Your task to perform on an android device: turn on notifications settings in the gmail app Image 0: 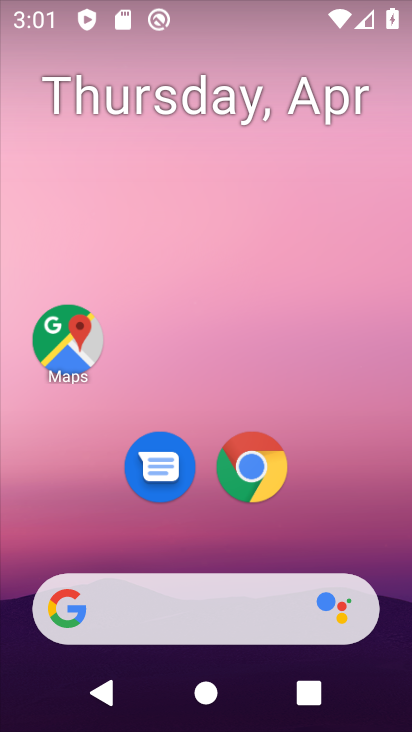
Step 0: drag from (335, 498) to (329, 90)
Your task to perform on an android device: turn on notifications settings in the gmail app Image 1: 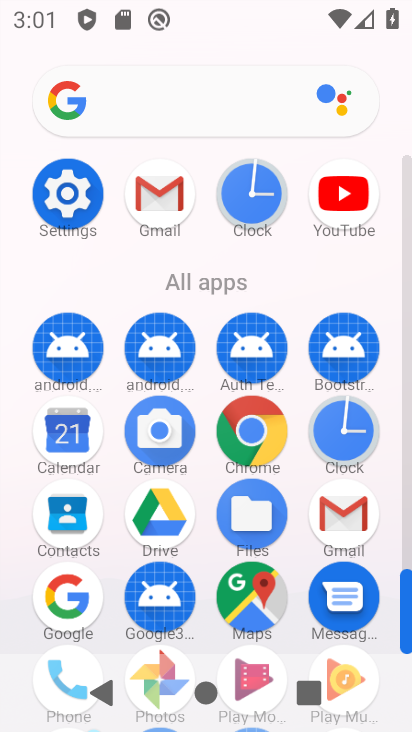
Step 1: click (165, 202)
Your task to perform on an android device: turn on notifications settings in the gmail app Image 2: 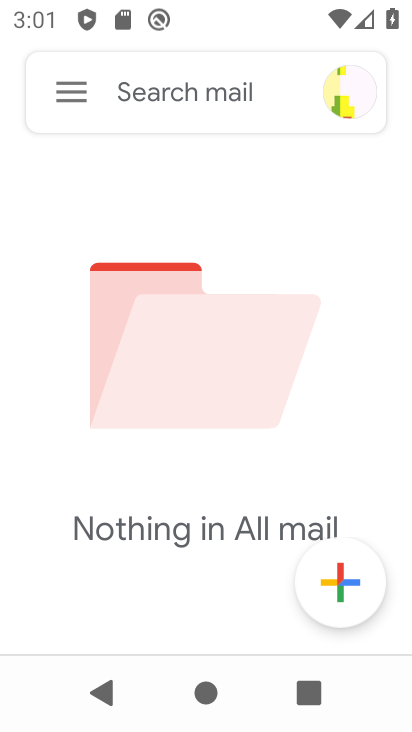
Step 2: click (76, 91)
Your task to perform on an android device: turn on notifications settings in the gmail app Image 3: 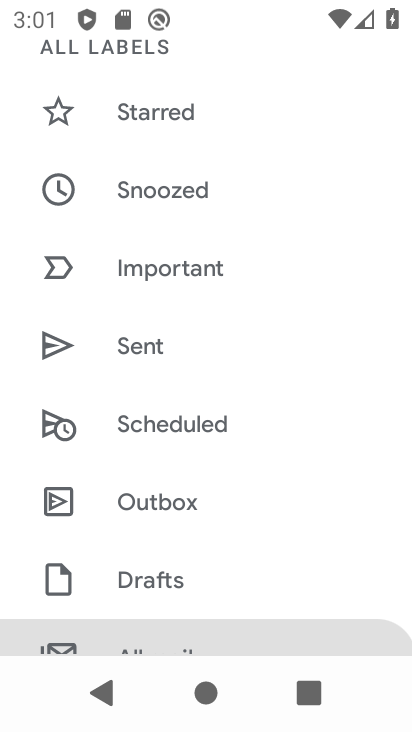
Step 3: drag from (219, 532) to (237, 45)
Your task to perform on an android device: turn on notifications settings in the gmail app Image 4: 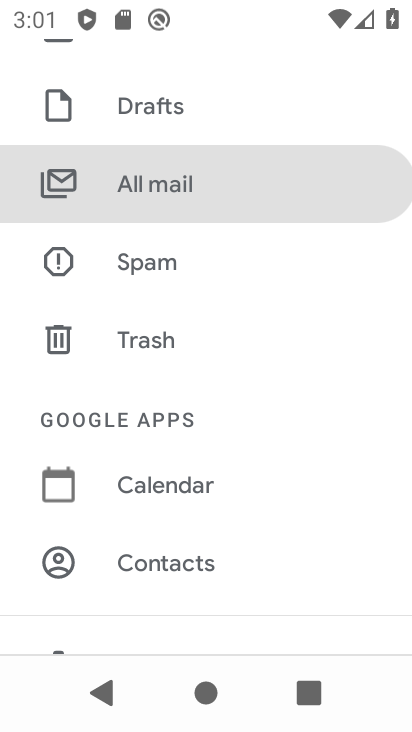
Step 4: drag from (264, 578) to (273, 164)
Your task to perform on an android device: turn on notifications settings in the gmail app Image 5: 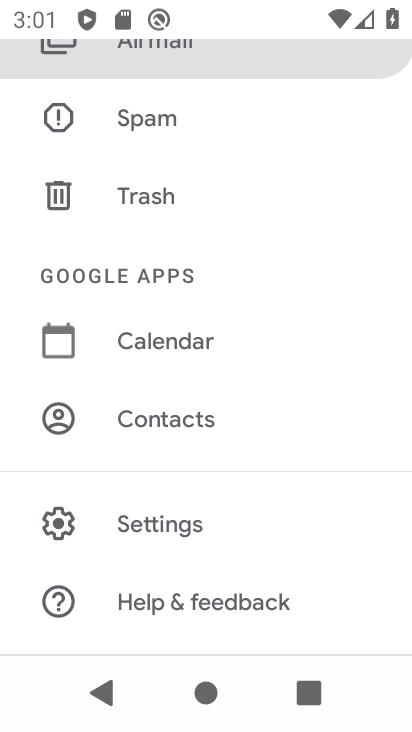
Step 5: click (182, 522)
Your task to perform on an android device: turn on notifications settings in the gmail app Image 6: 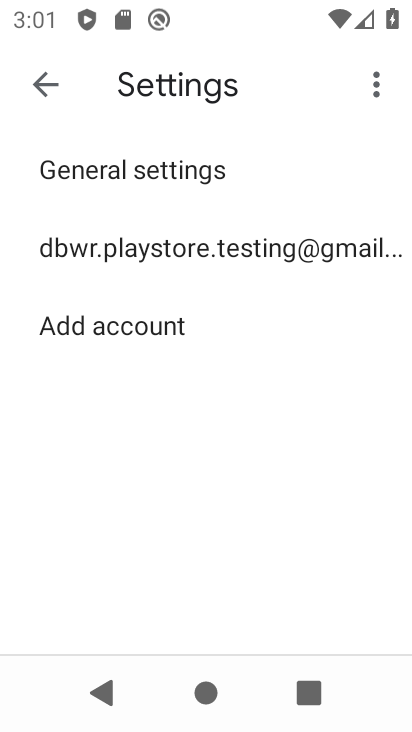
Step 6: click (254, 244)
Your task to perform on an android device: turn on notifications settings in the gmail app Image 7: 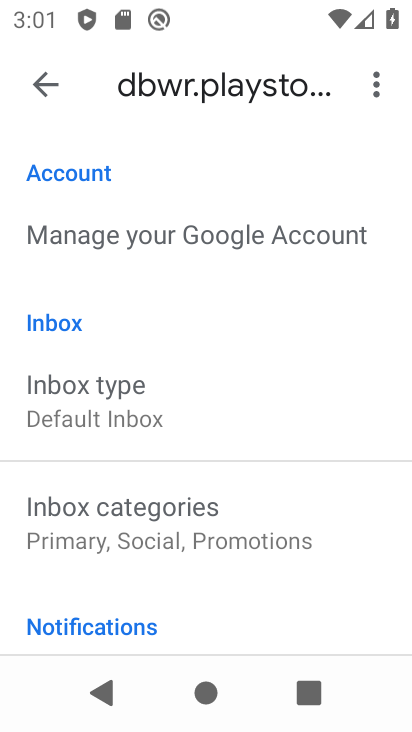
Step 7: drag from (278, 606) to (291, 196)
Your task to perform on an android device: turn on notifications settings in the gmail app Image 8: 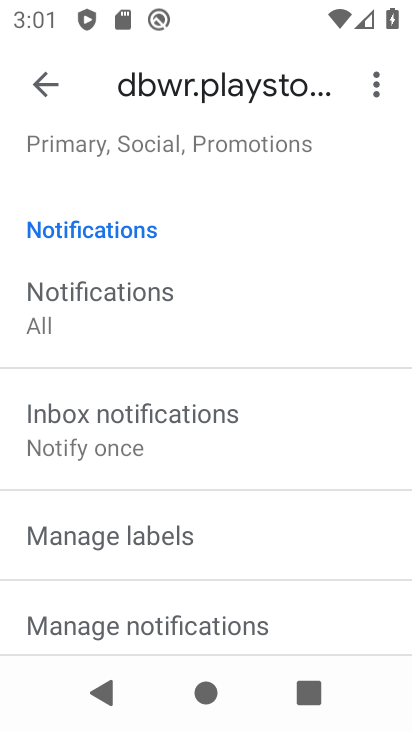
Step 8: click (270, 620)
Your task to perform on an android device: turn on notifications settings in the gmail app Image 9: 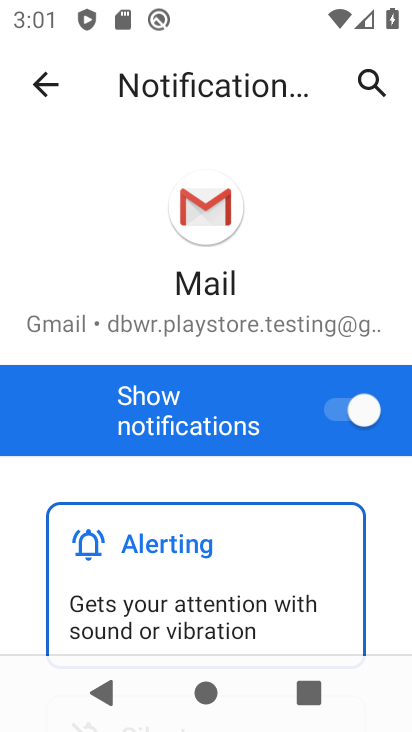
Step 9: task complete